Your task to perform on an android device: change text size in settings app Image 0: 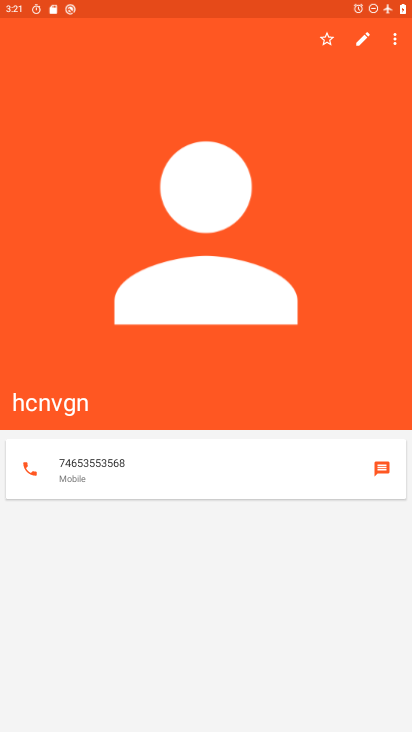
Step 0: press home button
Your task to perform on an android device: change text size in settings app Image 1: 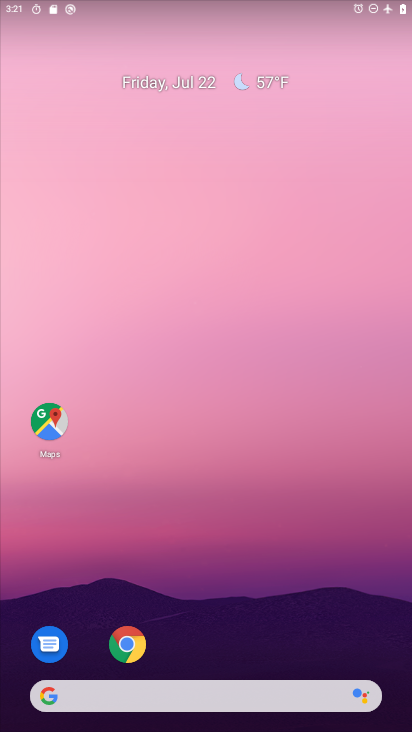
Step 1: drag from (252, 583) to (237, 260)
Your task to perform on an android device: change text size in settings app Image 2: 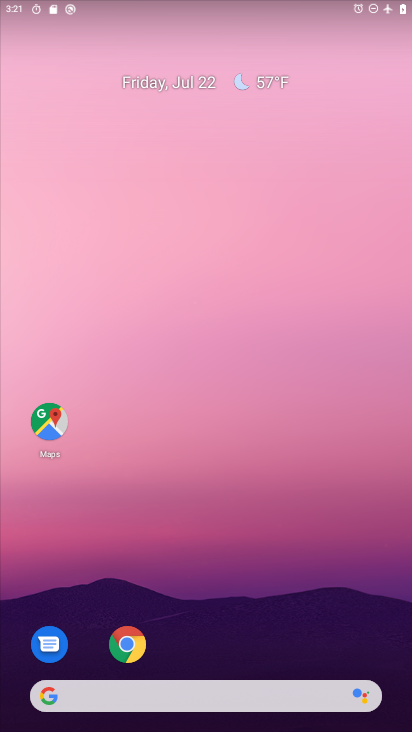
Step 2: drag from (197, 634) to (248, 190)
Your task to perform on an android device: change text size in settings app Image 3: 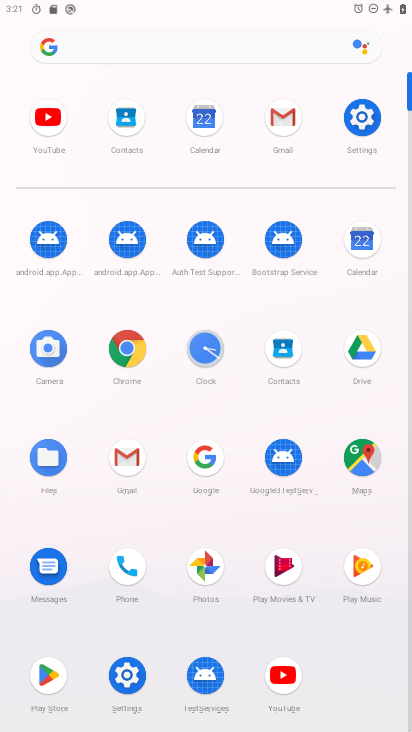
Step 3: click (350, 130)
Your task to perform on an android device: change text size in settings app Image 4: 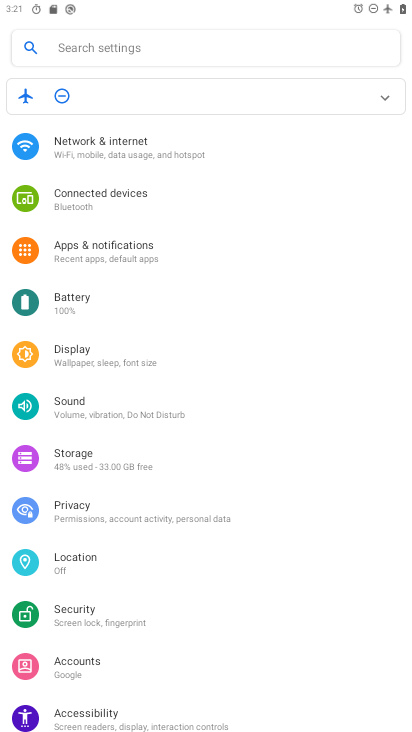
Step 4: click (105, 352)
Your task to perform on an android device: change text size in settings app Image 5: 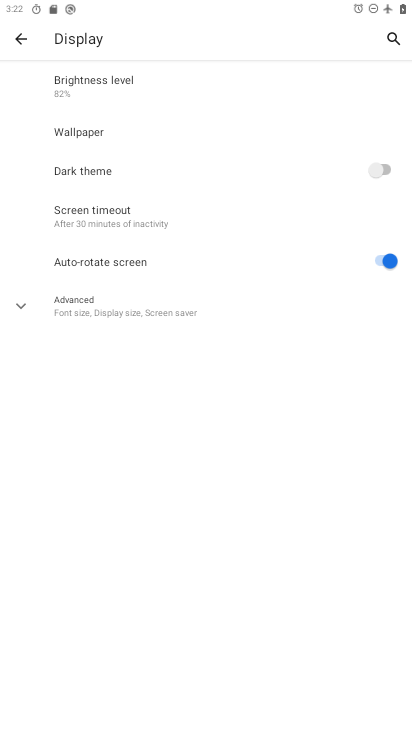
Step 5: click (90, 322)
Your task to perform on an android device: change text size in settings app Image 6: 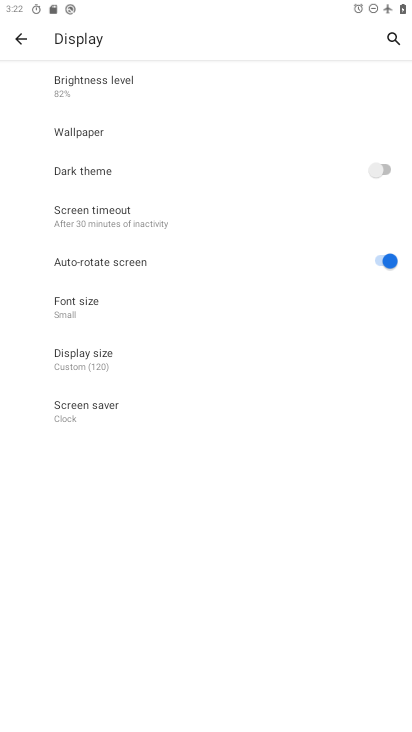
Step 6: click (89, 321)
Your task to perform on an android device: change text size in settings app Image 7: 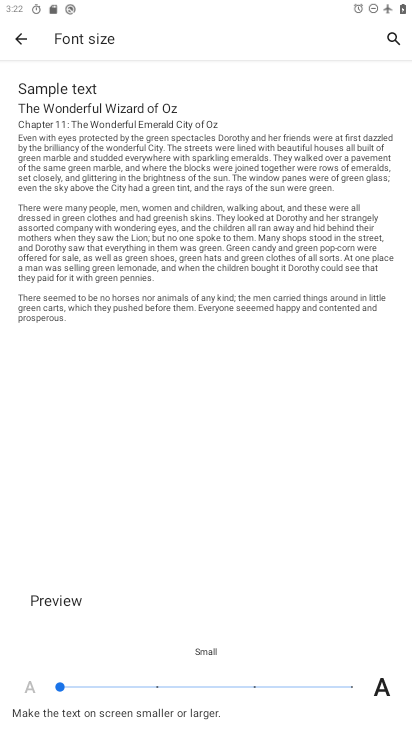
Step 7: click (338, 686)
Your task to perform on an android device: change text size in settings app Image 8: 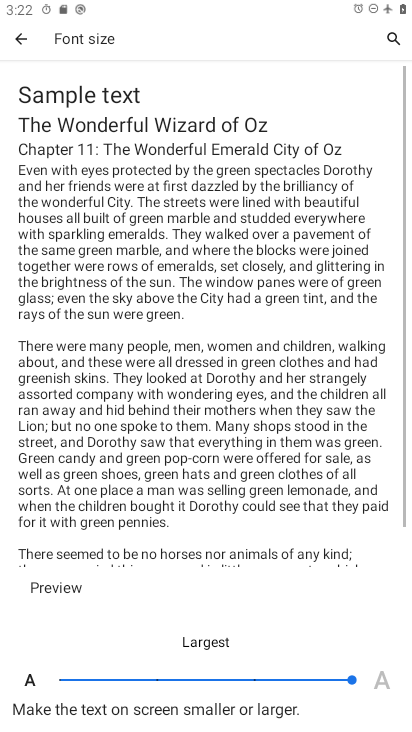
Step 8: task complete